Your task to perform on an android device: Open the calendar and show me this week's events? Image 0: 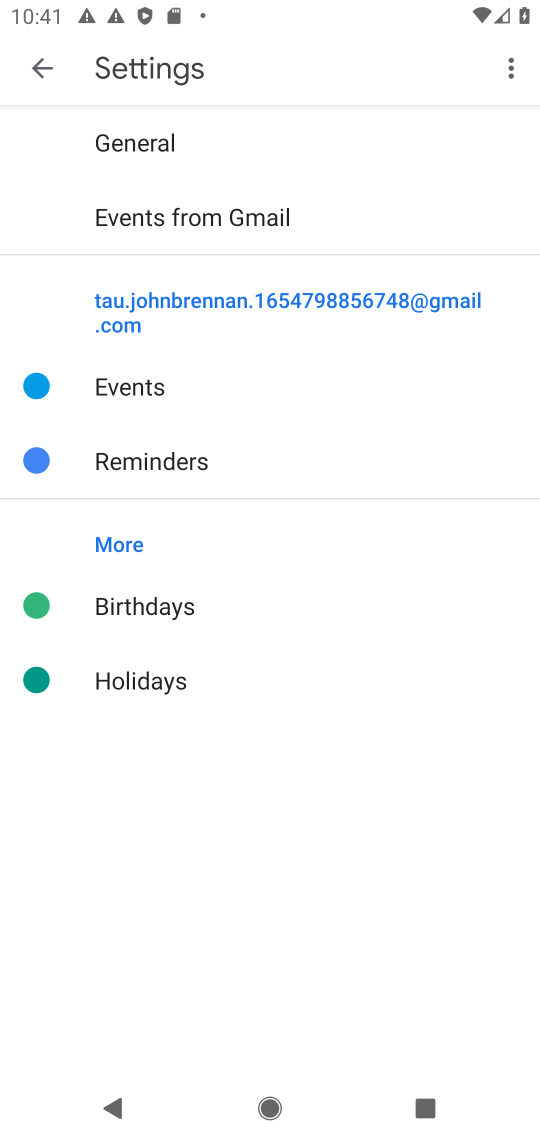
Step 0: press back button
Your task to perform on an android device: Open the calendar and show me this week's events? Image 1: 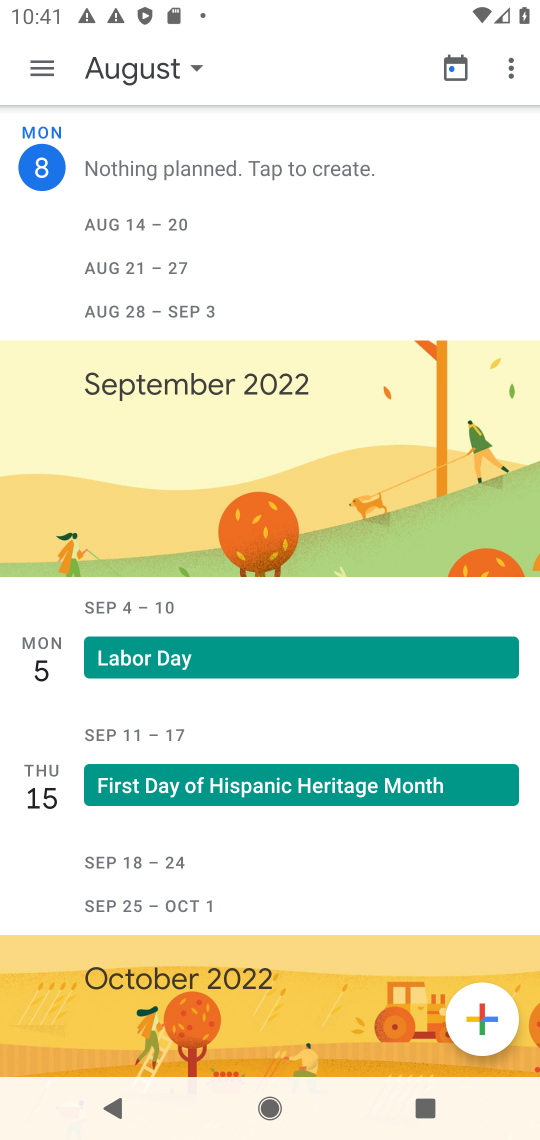
Step 1: press home button
Your task to perform on an android device: Open the calendar and show me this week's events? Image 2: 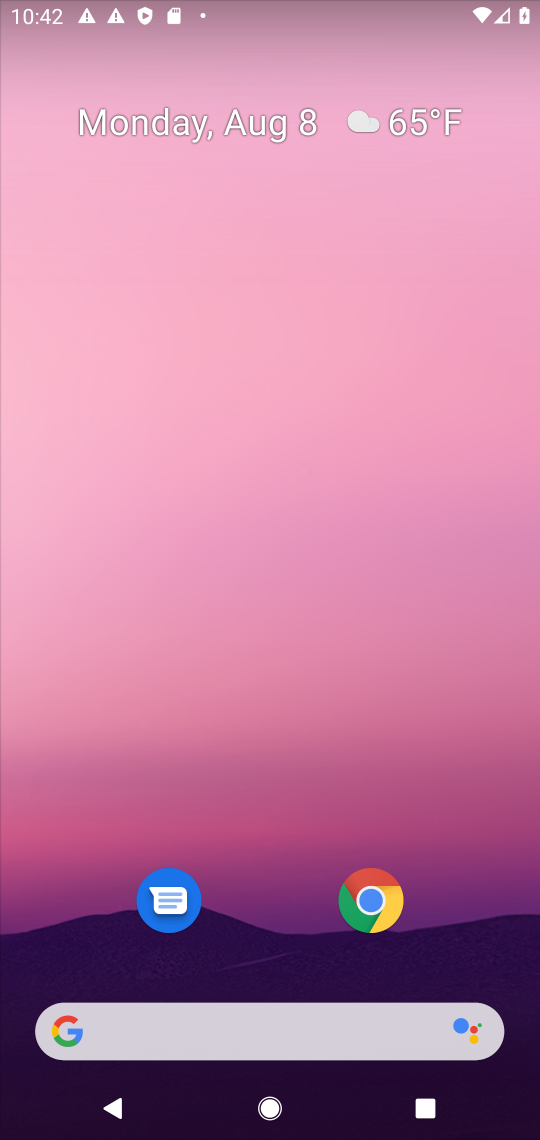
Step 2: drag from (284, 845) to (322, 90)
Your task to perform on an android device: Open the calendar and show me this week's events? Image 3: 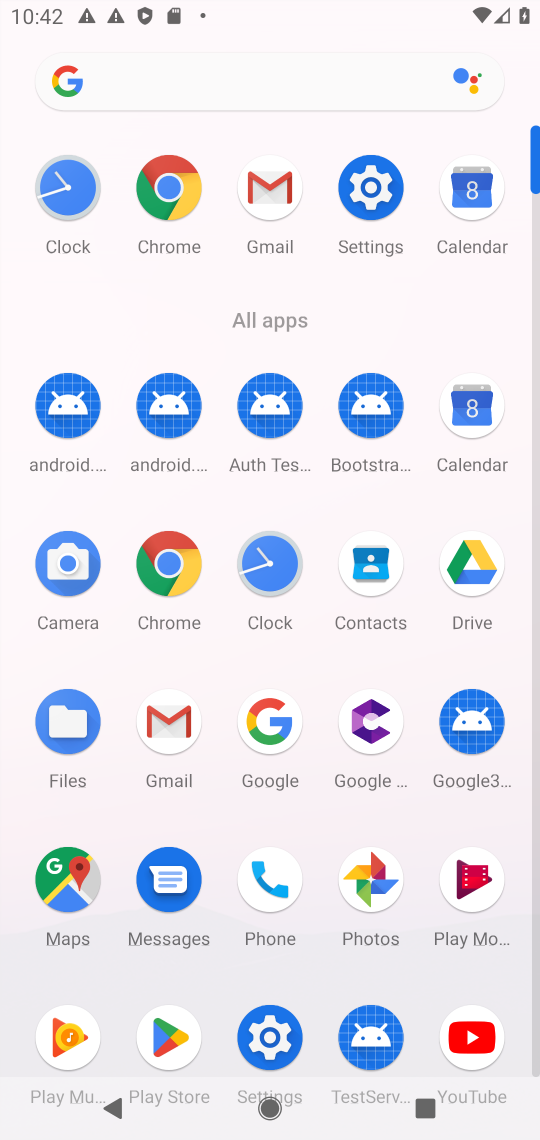
Step 3: click (483, 418)
Your task to perform on an android device: Open the calendar and show me this week's events? Image 4: 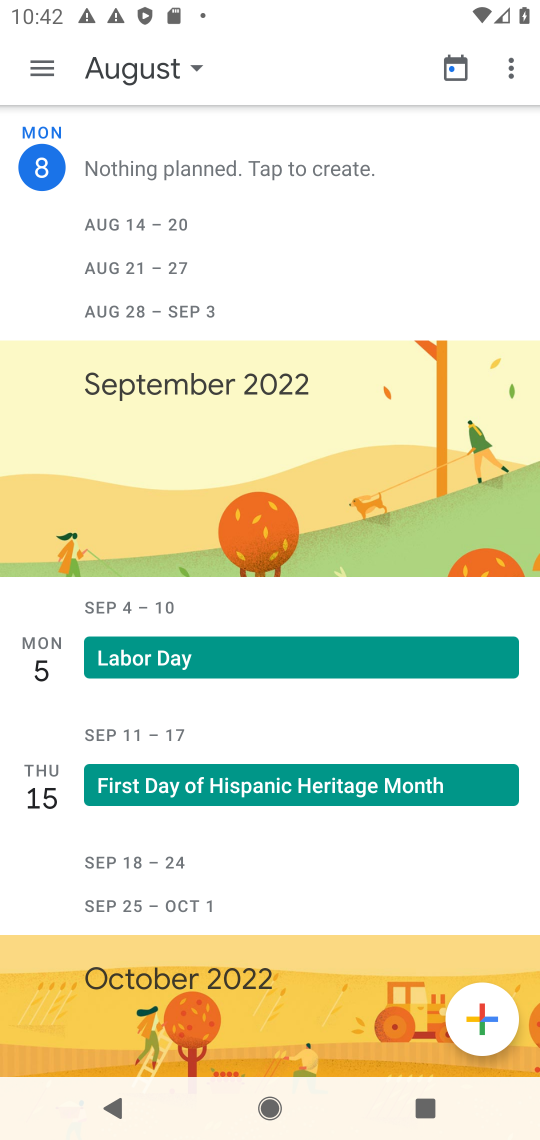
Step 4: click (49, 72)
Your task to perform on an android device: Open the calendar and show me this week's events? Image 5: 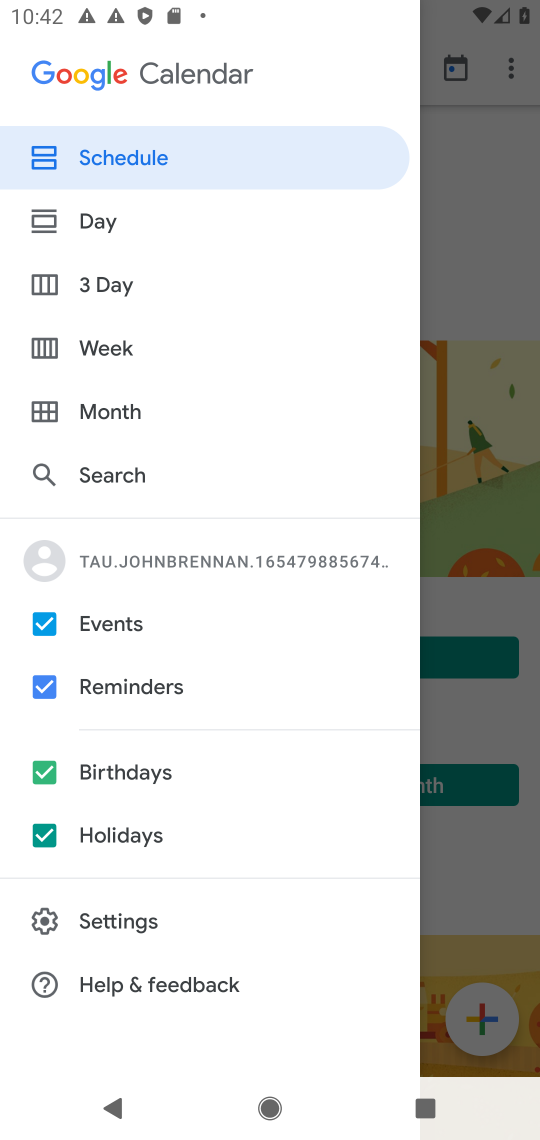
Step 5: click (118, 343)
Your task to perform on an android device: Open the calendar and show me this week's events? Image 6: 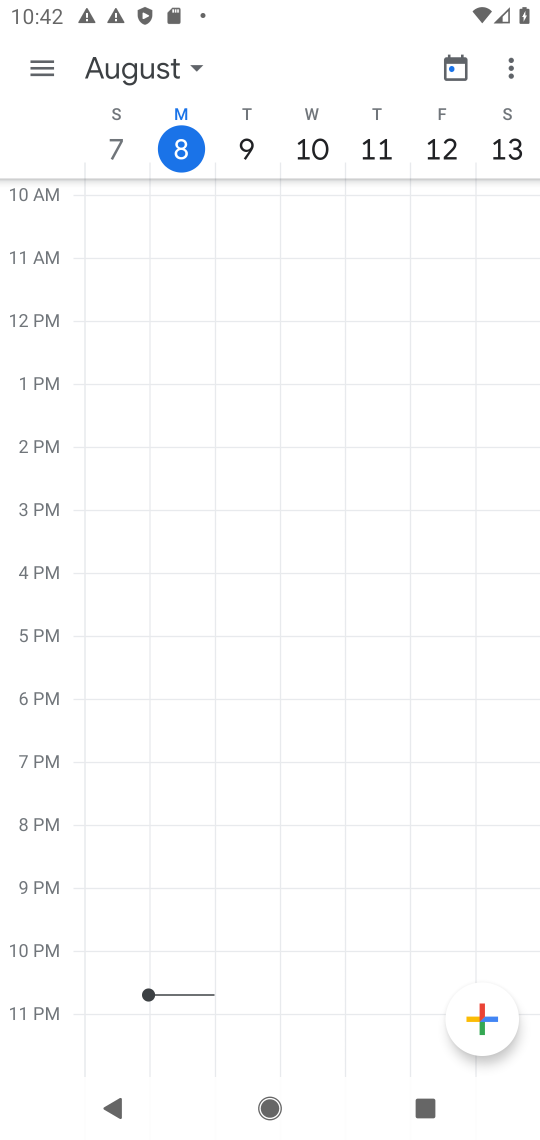
Step 6: task complete